Your task to perform on an android device: Turn off the flashlight Image 0: 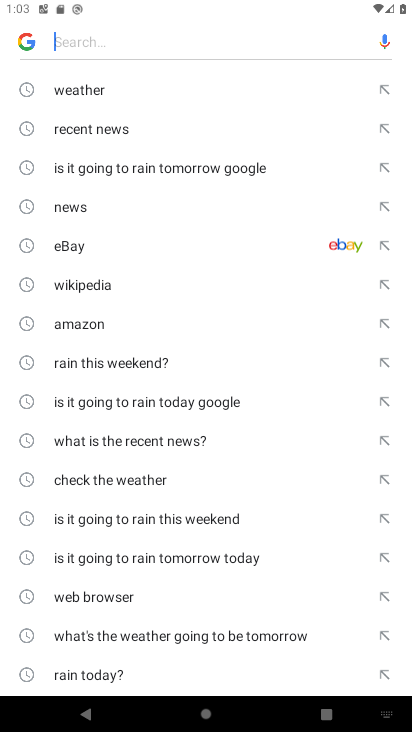
Step 0: press home button
Your task to perform on an android device: Turn off the flashlight Image 1: 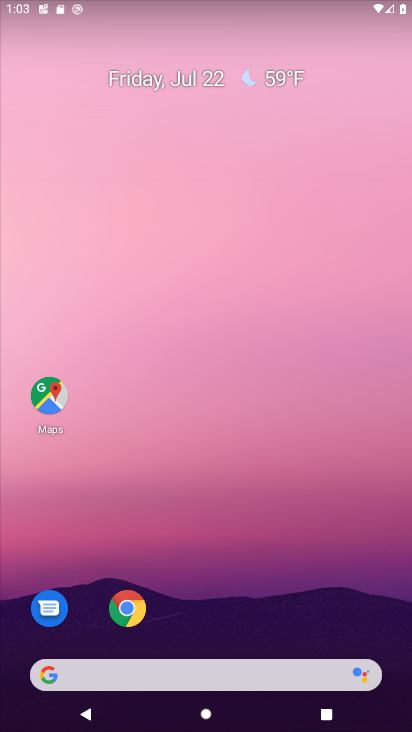
Step 1: drag from (165, 521) to (157, 15)
Your task to perform on an android device: Turn off the flashlight Image 2: 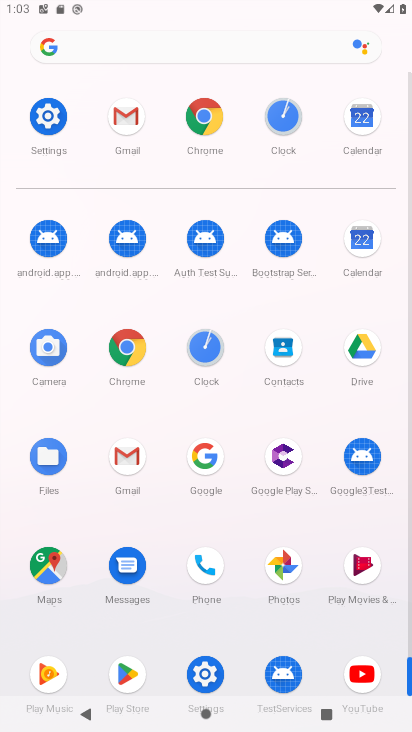
Step 2: click (203, 673)
Your task to perform on an android device: Turn off the flashlight Image 3: 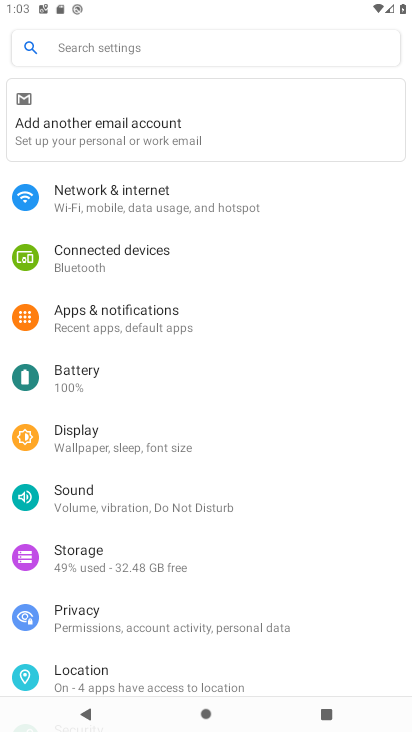
Step 3: click (195, 40)
Your task to perform on an android device: Turn off the flashlight Image 4: 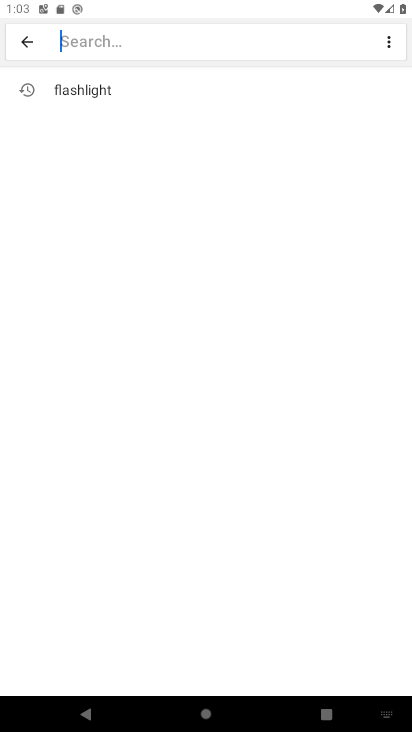
Step 4: type "flashlight"
Your task to perform on an android device: Turn off the flashlight Image 5: 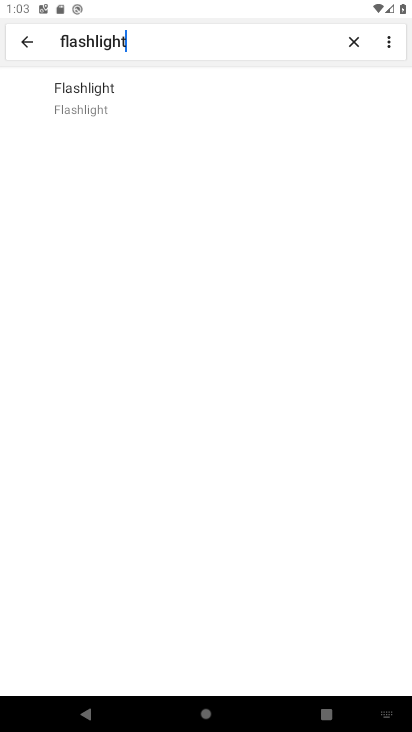
Step 5: click (88, 95)
Your task to perform on an android device: Turn off the flashlight Image 6: 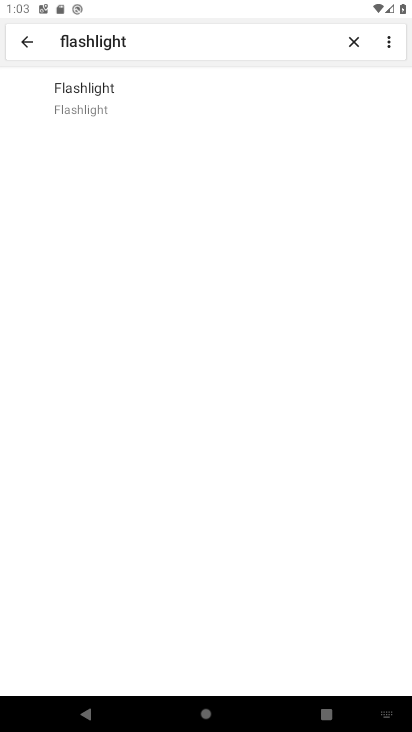
Step 6: click (61, 98)
Your task to perform on an android device: Turn off the flashlight Image 7: 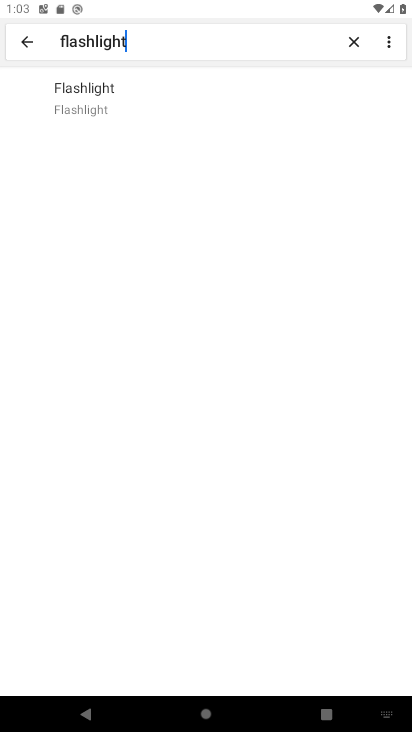
Step 7: task complete